Your task to perform on an android device: Search for vegetarian restaurants on Maps Image 0: 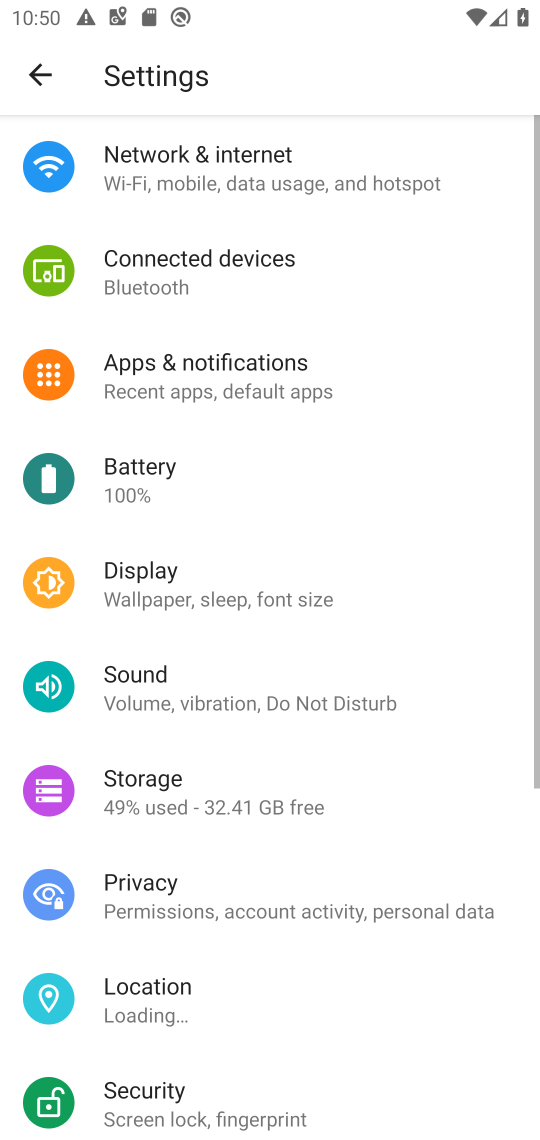
Step 0: press home button
Your task to perform on an android device: Search for vegetarian restaurants on Maps Image 1: 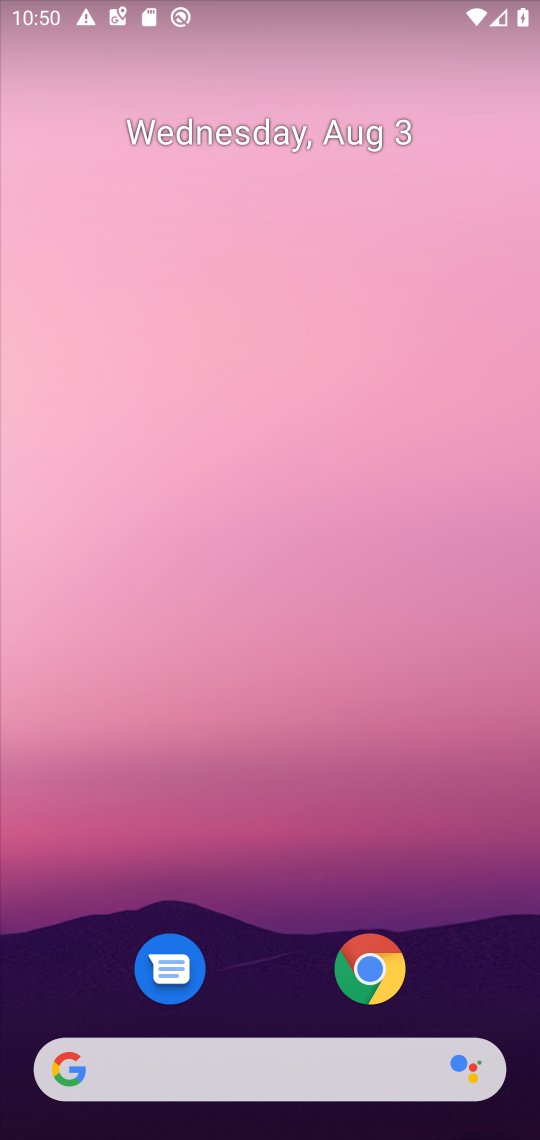
Step 1: drag from (250, 1021) to (182, 6)
Your task to perform on an android device: Search for vegetarian restaurants on Maps Image 2: 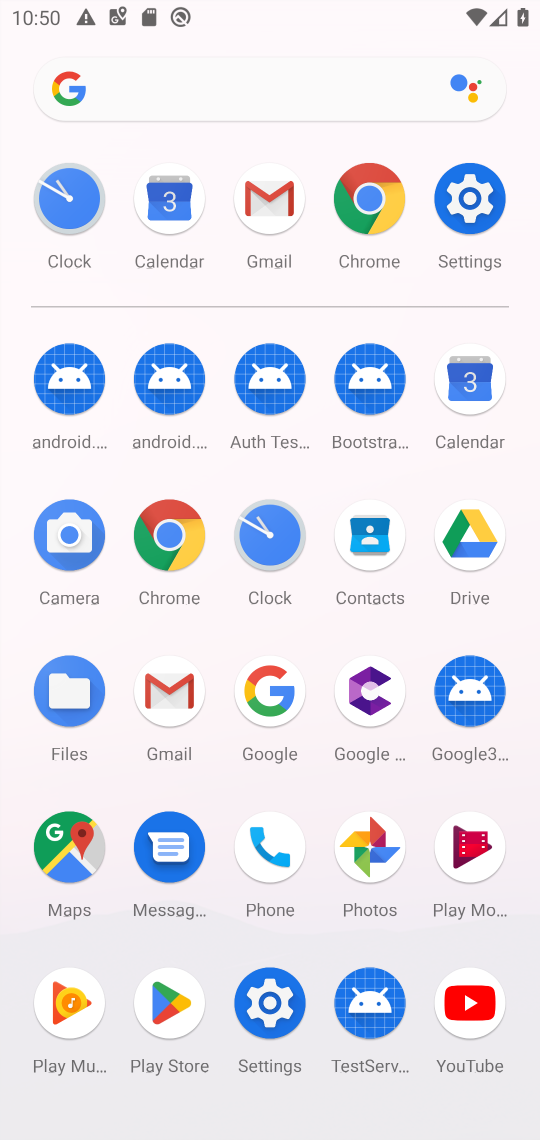
Step 2: click (84, 839)
Your task to perform on an android device: Search for vegetarian restaurants on Maps Image 3: 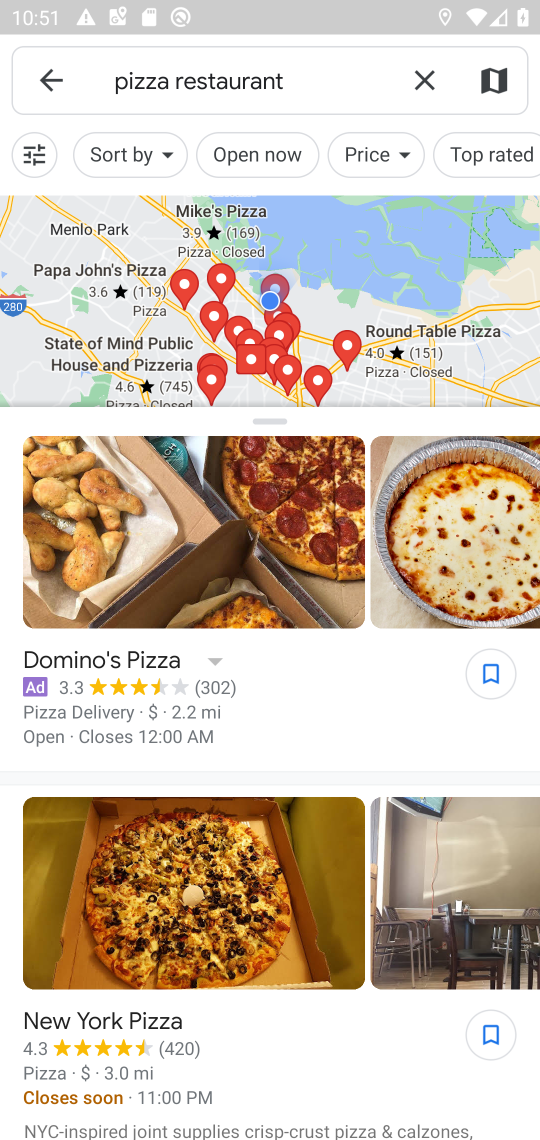
Step 3: click (421, 78)
Your task to perform on an android device: Search for vegetarian restaurants on Maps Image 4: 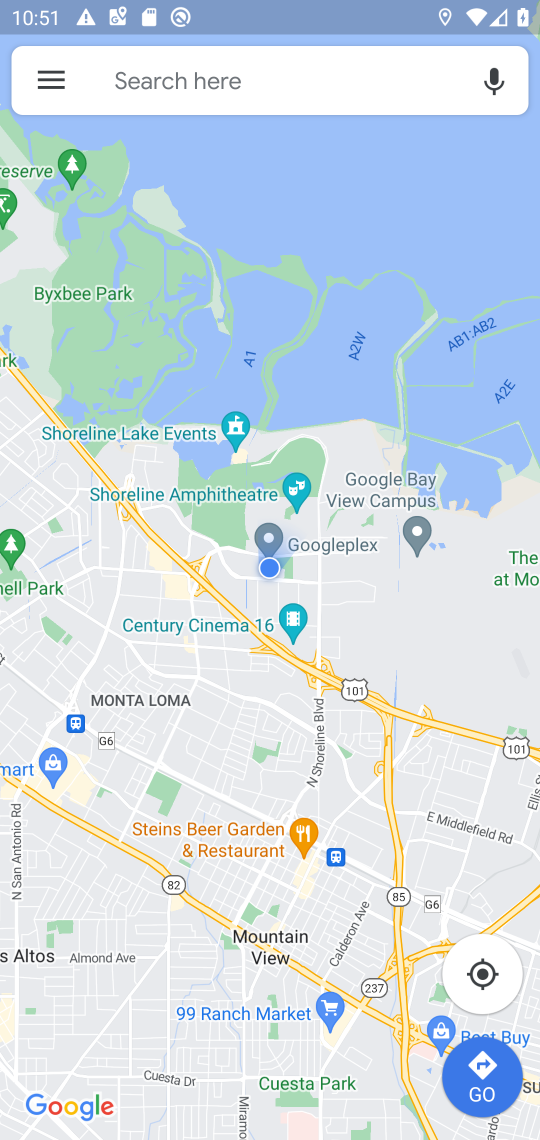
Step 4: drag from (473, 548) to (152, 79)
Your task to perform on an android device: Search for vegetarian restaurants on Maps Image 5: 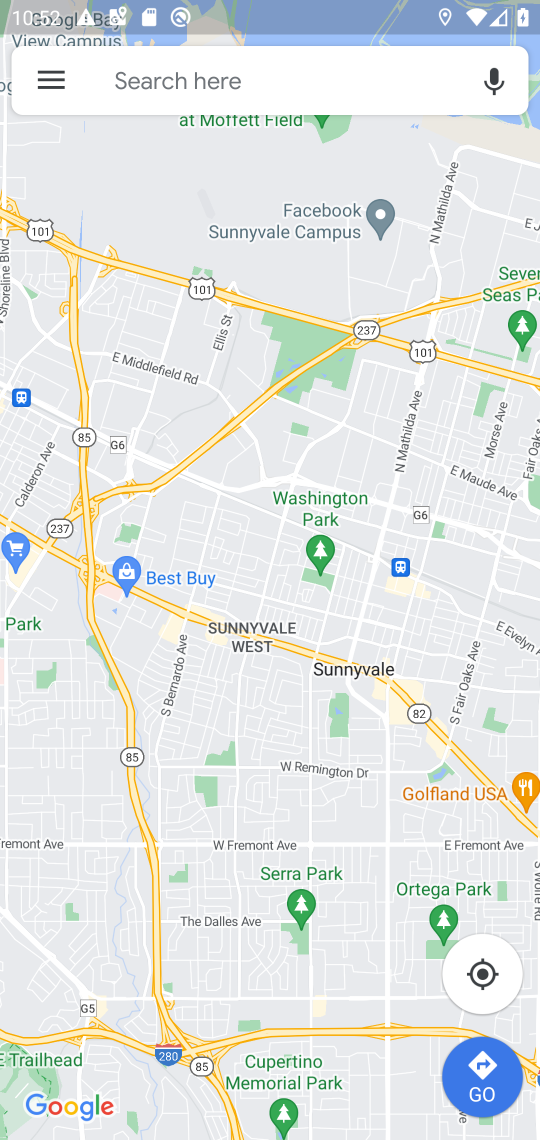
Step 5: click (227, 66)
Your task to perform on an android device: Search for vegetarian restaurants on Maps Image 6: 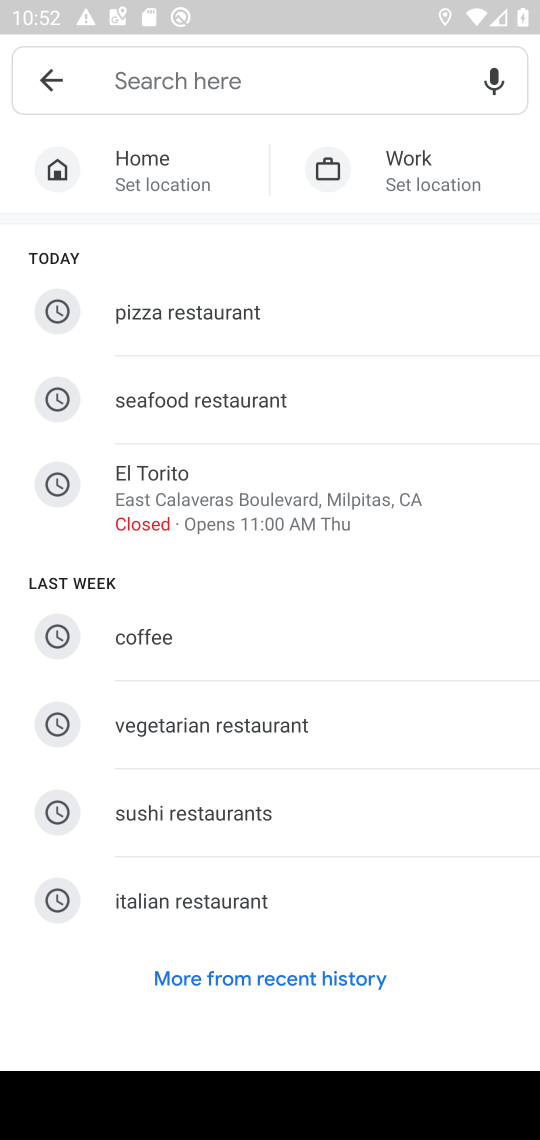
Step 6: click (151, 711)
Your task to perform on an android device: Search for vegetarian restaurants on Maps Image 7: 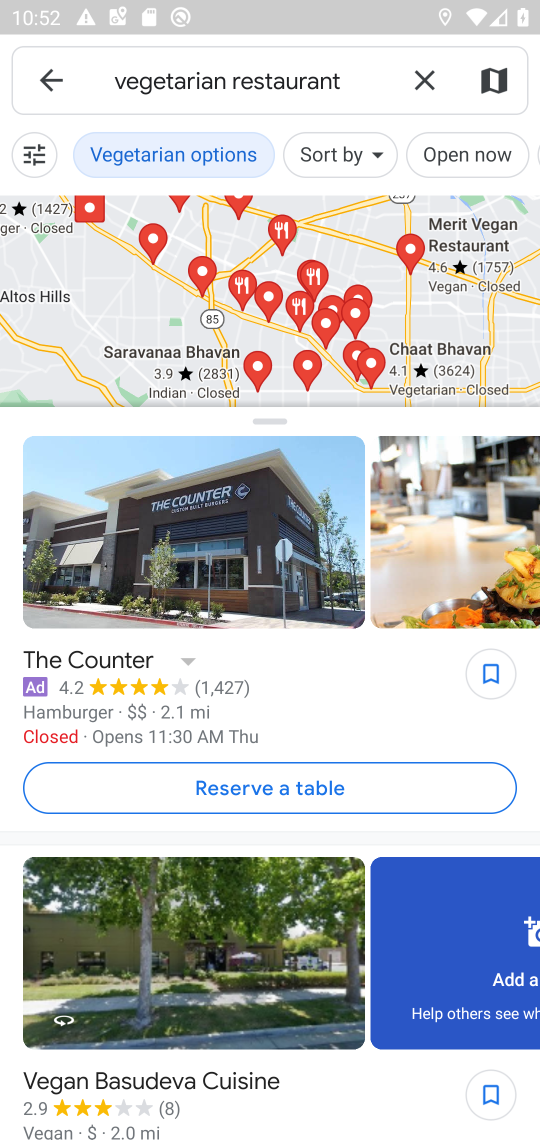
Step 7: task complete